Your task to perform on an android device: Open Youtube and go to the subscriptions tab Image 0: 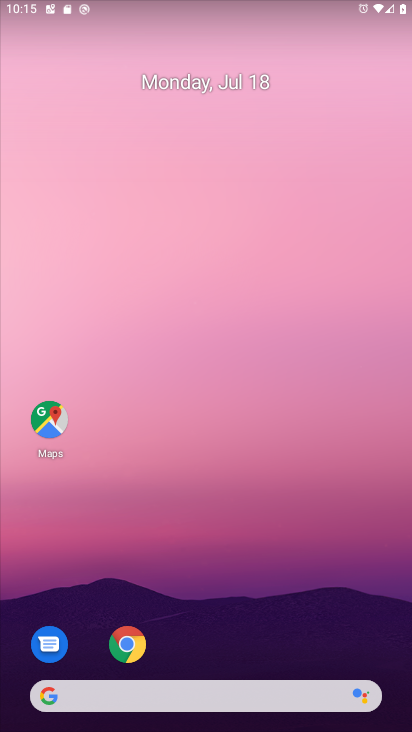
Step 0: drag from (325, 643) to (229, 73)
Your task to perform on an android device: Open Youtube and go to the subscriptions tab Image 1: 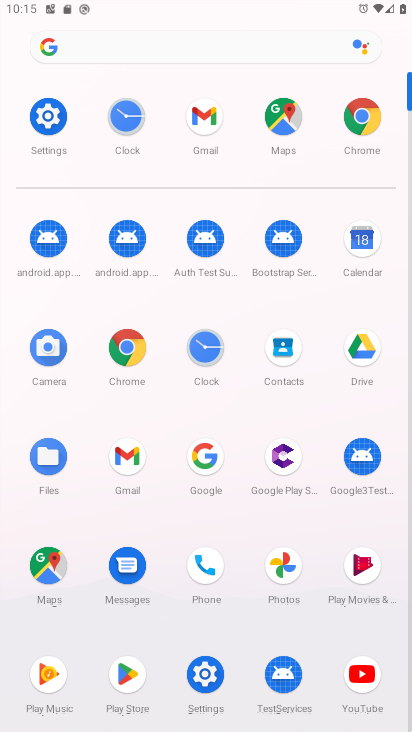
Step 1: click (358, 696)
Your task to perform on an android device: Open Youtube and go to the subscriptions tab Image 2: 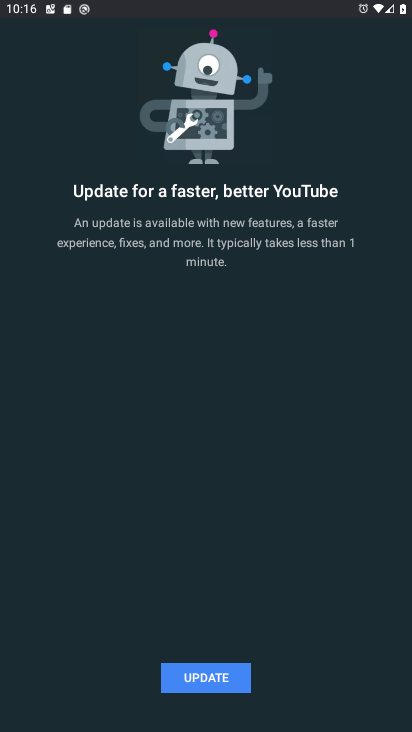
Step 2: click (190, 687)
Your task to perform on an android device: Open Youtube and go to the subscriptions tab Image 3: 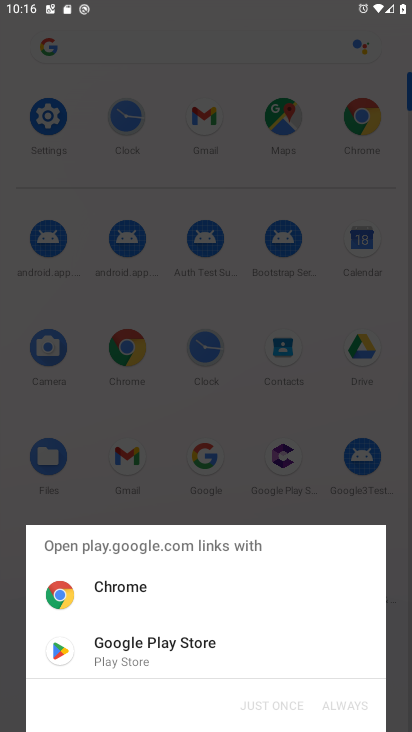
Step 3: click (250, 660)
Your task to perform on an android device: Open Youtube and go to the subscriptions tab Image 4: 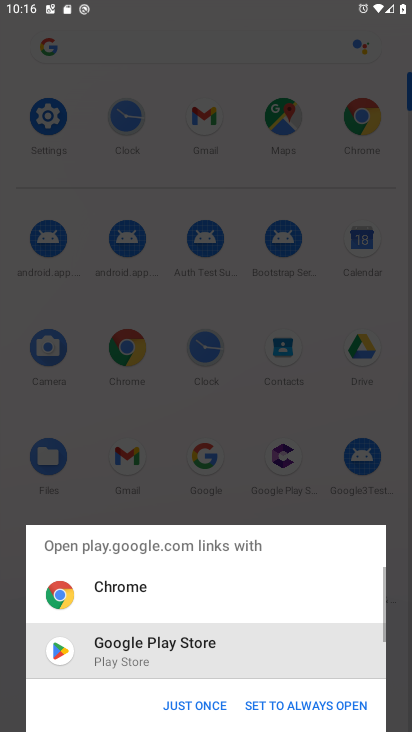
Step 4: click (197, 708)
Your task to perform on an android device: Open Youtube and go to the subscriptions tab Image 5: 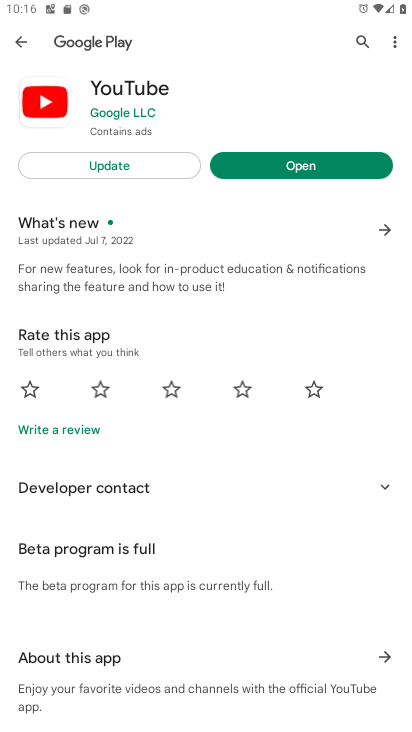
Step 5: click (87, 159)
Your task to perform on an android device: Open Youtube and go to the subscriptions tab Image 6: 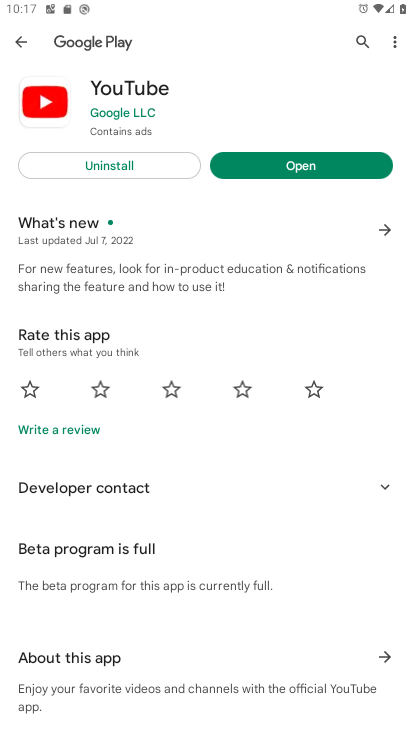
Step 6: click (236, 159)
Your task to perform on an android device: Open Youtube and go to the subscriptions tab Image 7: 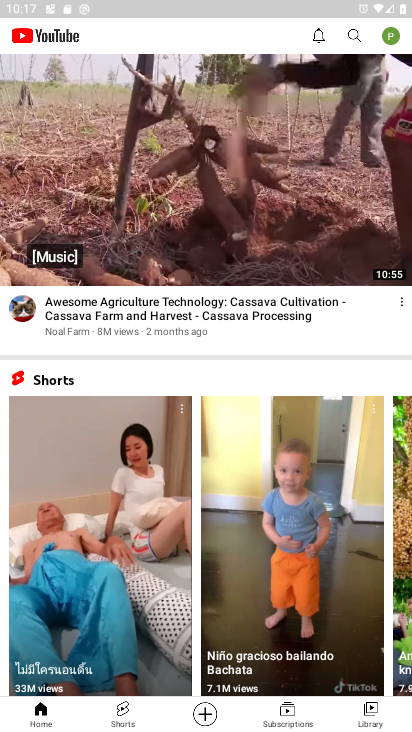
Step 7: click (277, 712)
Your task to perform on an android device: Open Youtube and go to the subscriptions tab Image 8: 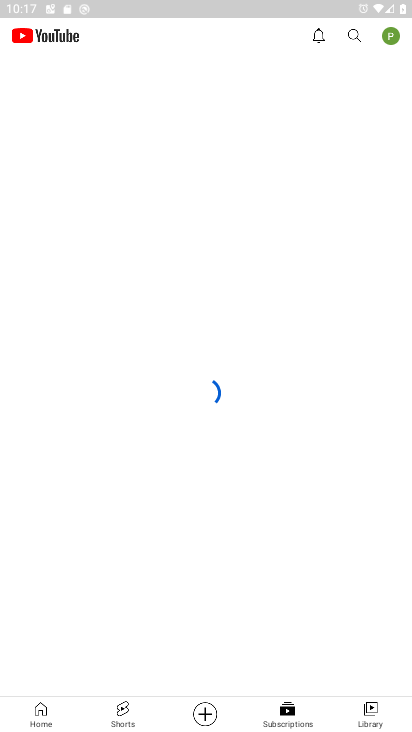
Step 8: task complete